Your task to perform on an android device: Go to eBay Image 0: 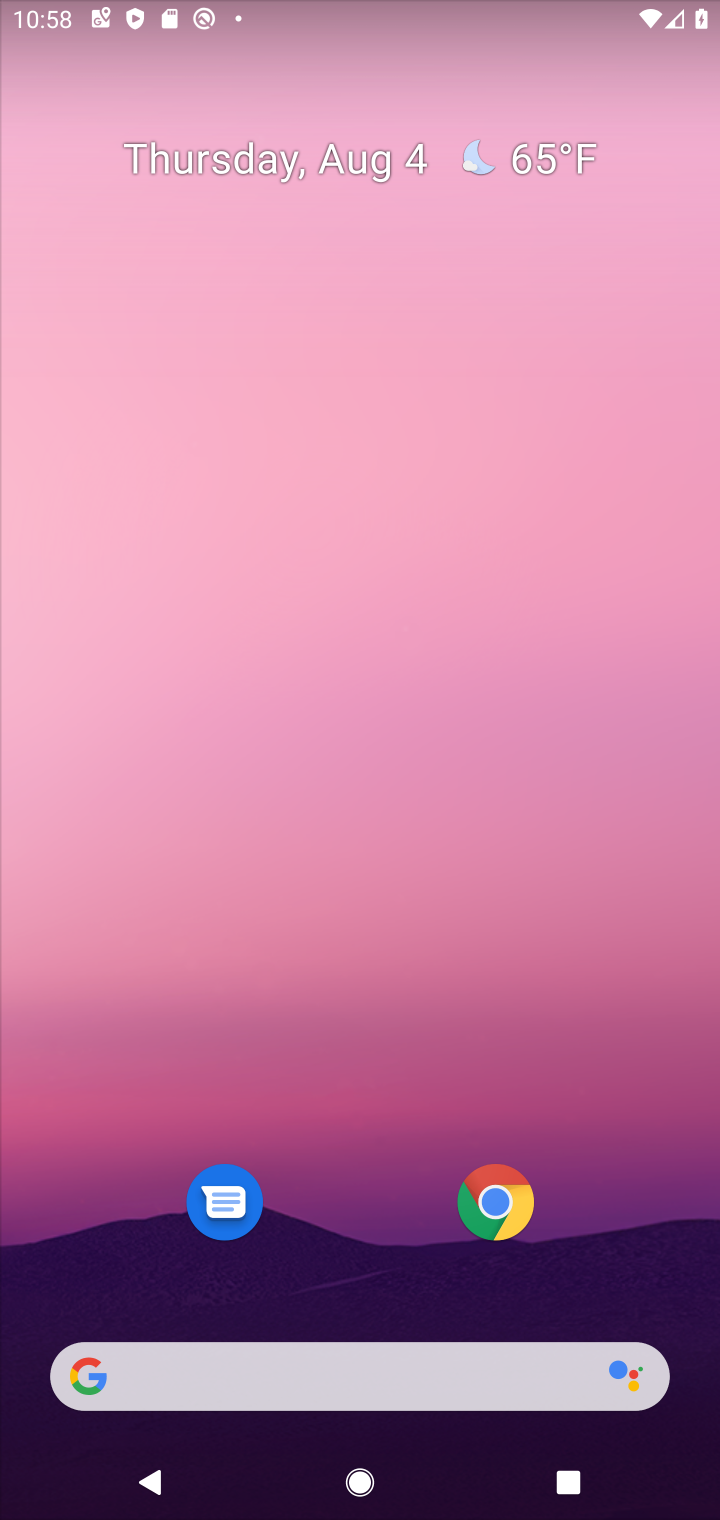
Step 0: click (514, 1194)
Your task to perform on an android device: Go to eBay Image 1: 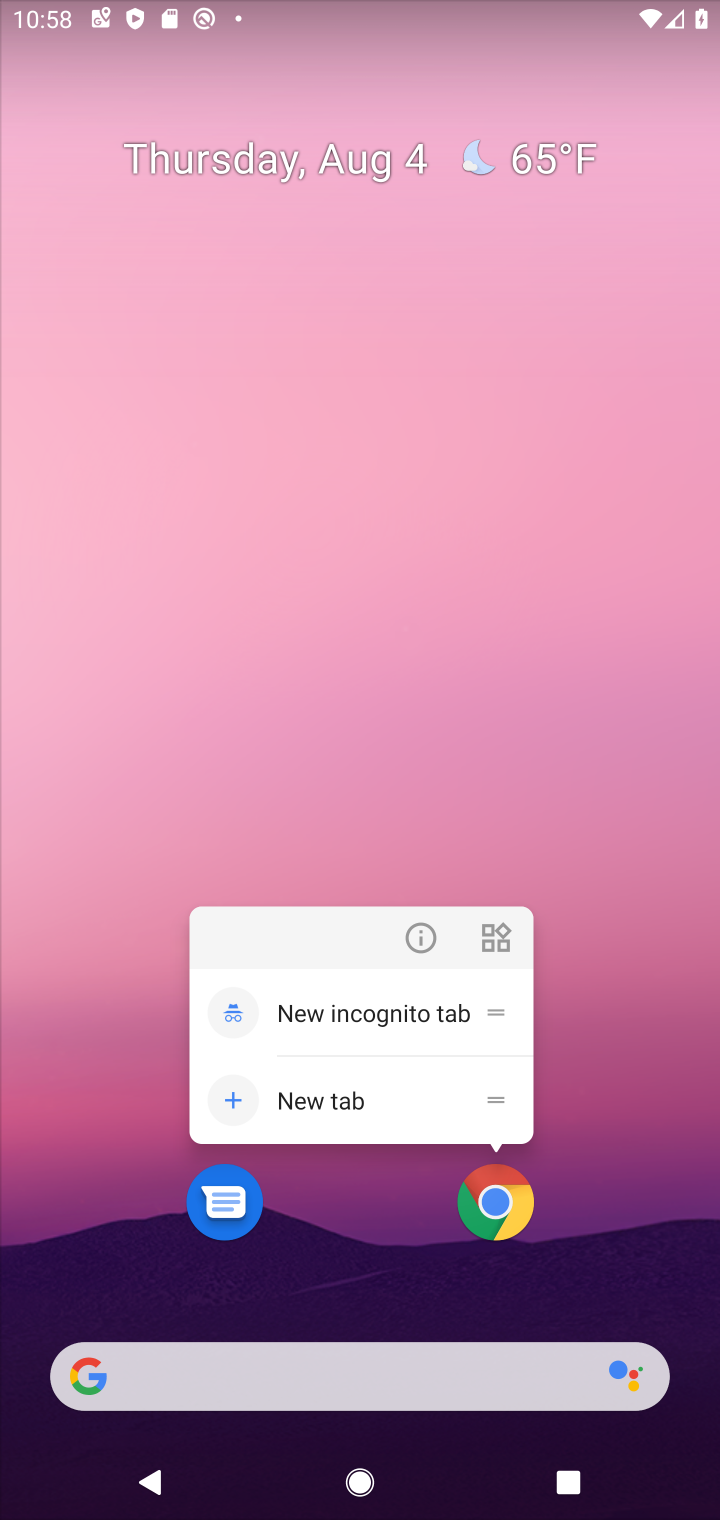
Step 1: click (501, 1200)
Your task to perform on an android device: Go to eBay Image 2: 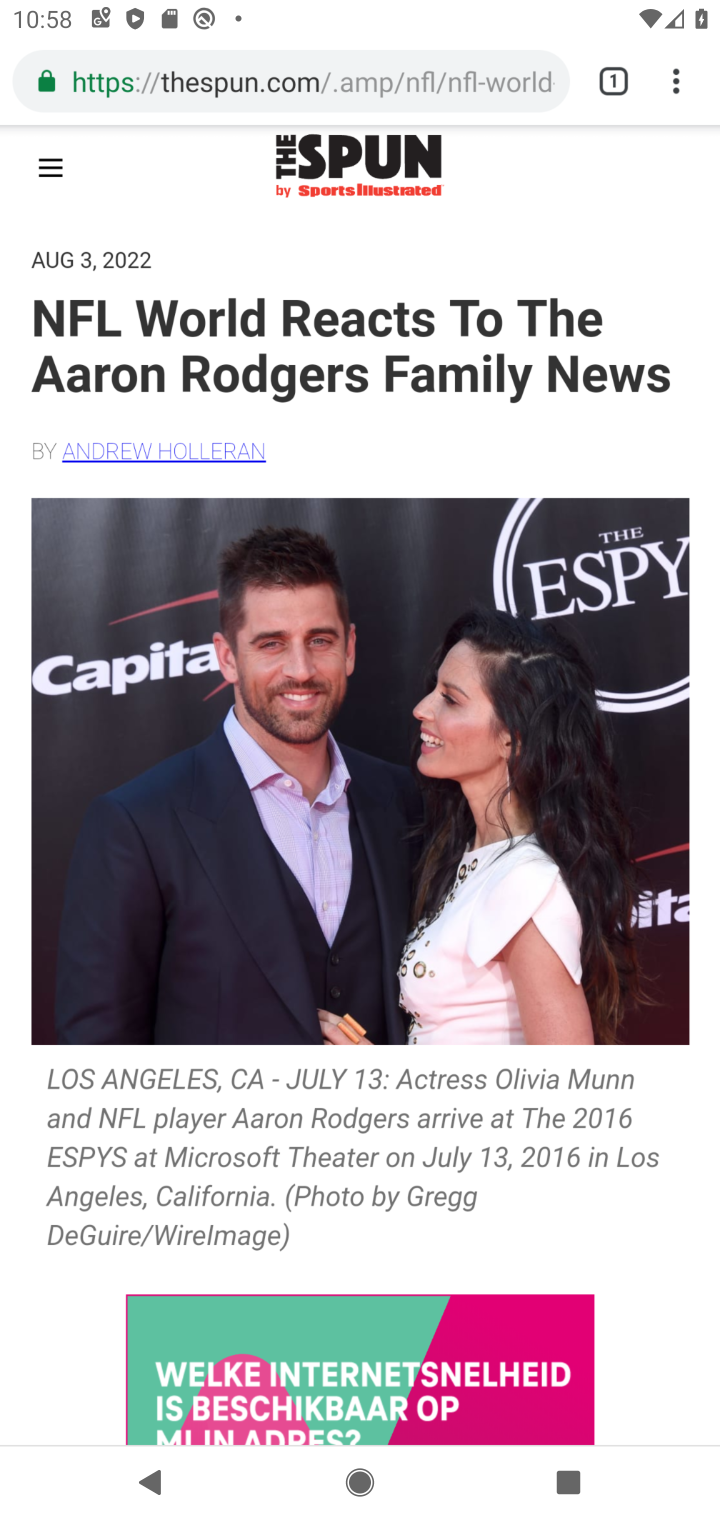
Step 2: click (618, 75)
Your task to perform on an android device: Go to eBay Image 3: 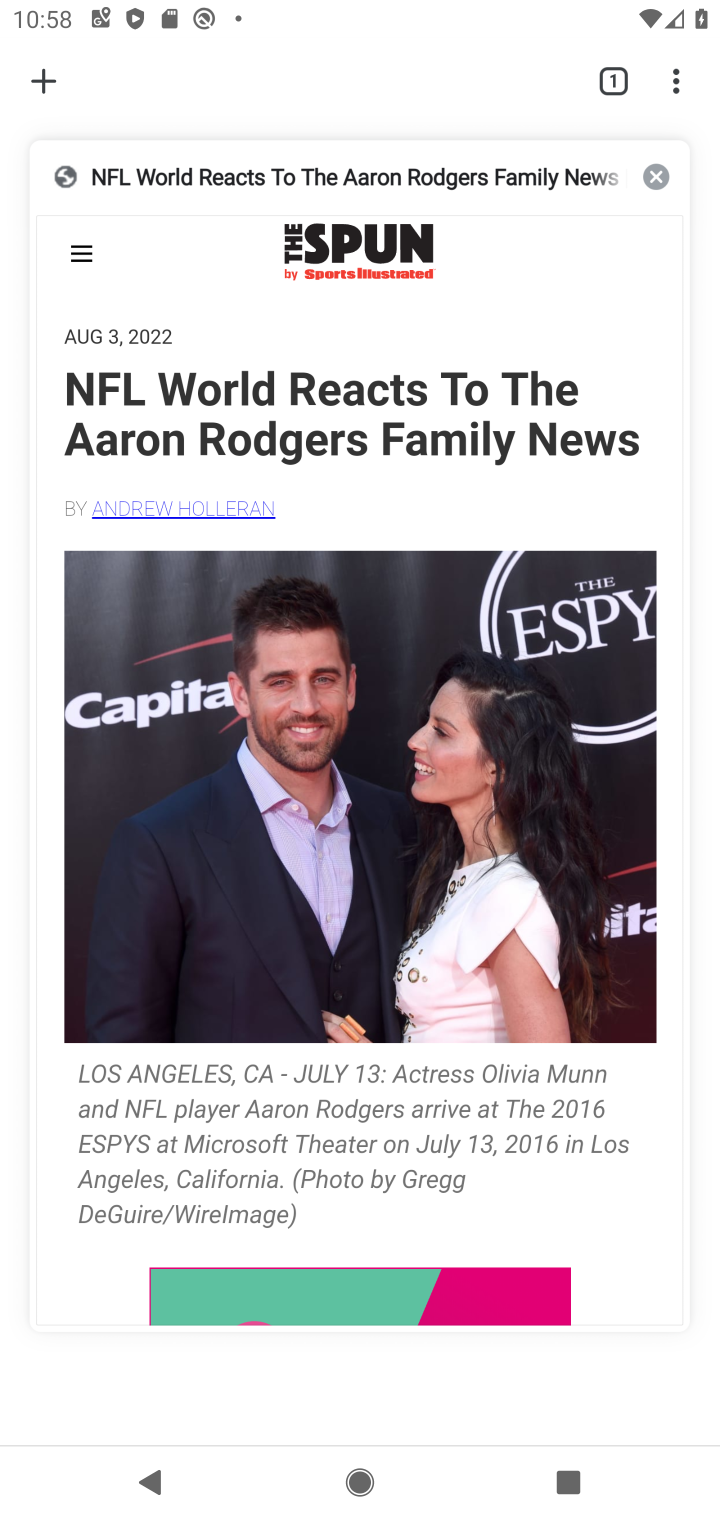
Step 3: click (58, 79)
Your task to perform on an android device: Go to eBay Image 4: 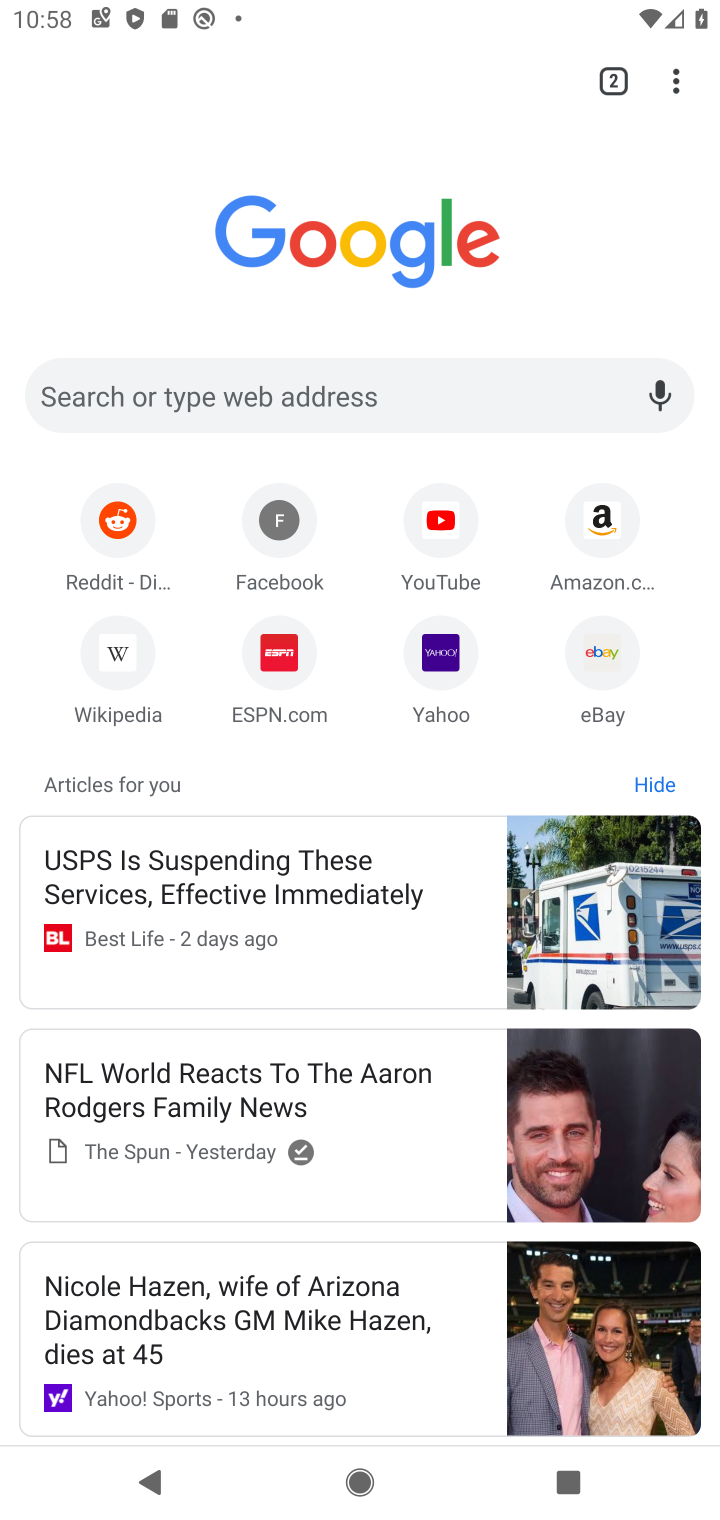
Step 4: click (616, 652)
Your task to perform on an android device: Go to eBay Image 5: 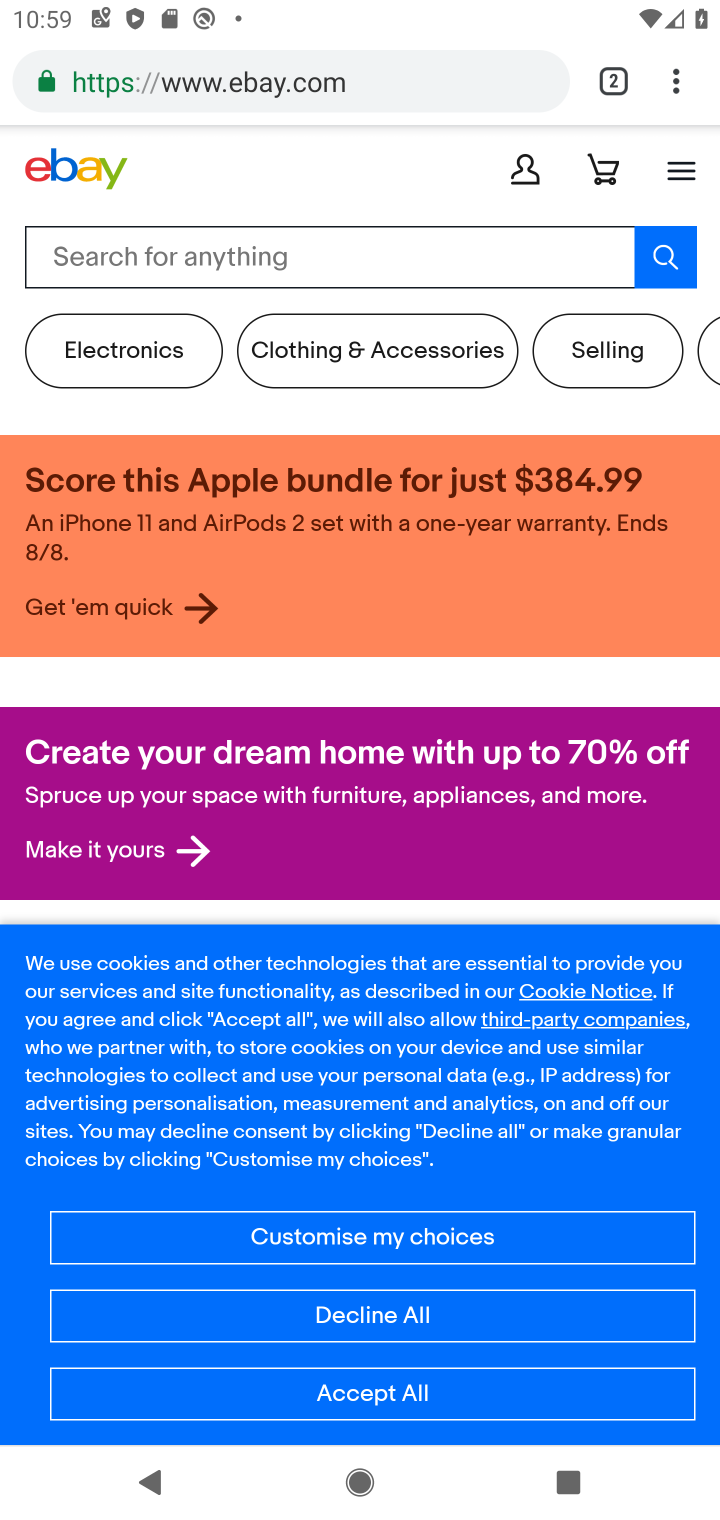
Step 5: task complete